Your task to perform on an android device: Open accessibility settings Image 0: 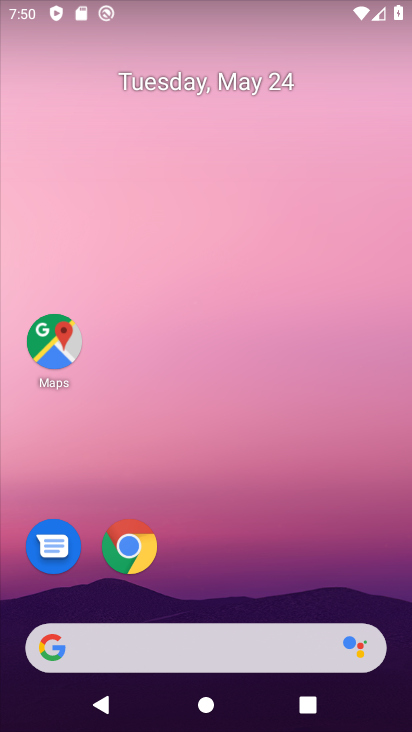
Step 0: drag from (288, 560) to (294, 81)
Your task to perform on an android device: Open accessibility settings Image 1: 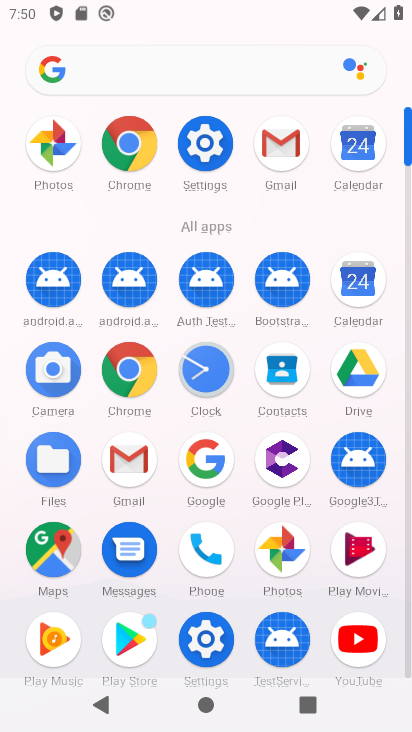
Step 1: click (199, 146)
Your task to perform on an android device: Open accessibility settings Image 2: 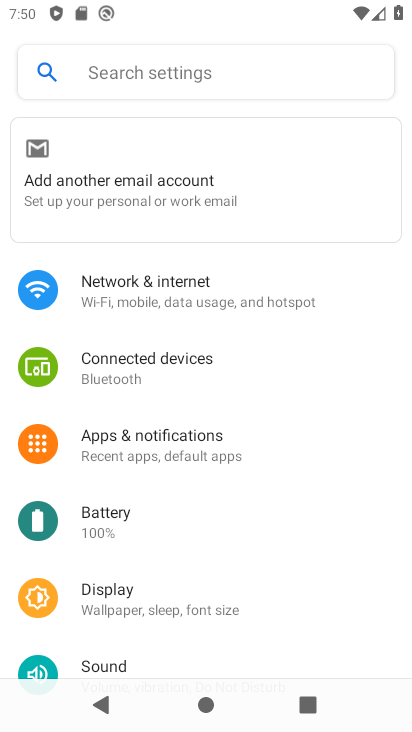
Step 2: drag from (260, 371) to (285, 87)
Your task to perform on an android device: Open accessibility settings Image 3: 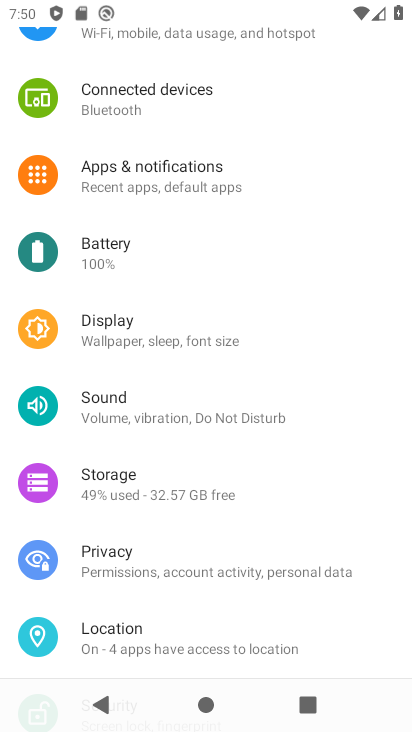
Step 3: drag from (215, 497) to (229, 73)
Your task to perform on an android device: Open accessibility settings Image 4: 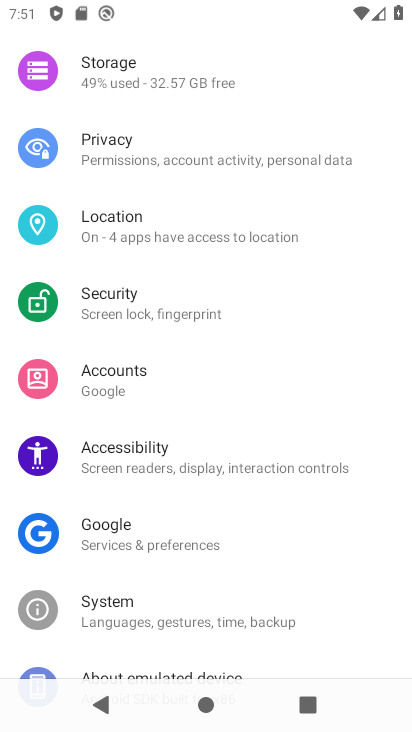
Step 4: click (202, 454)
Your task to perform on an android device: Open accessibility settings Image 5: 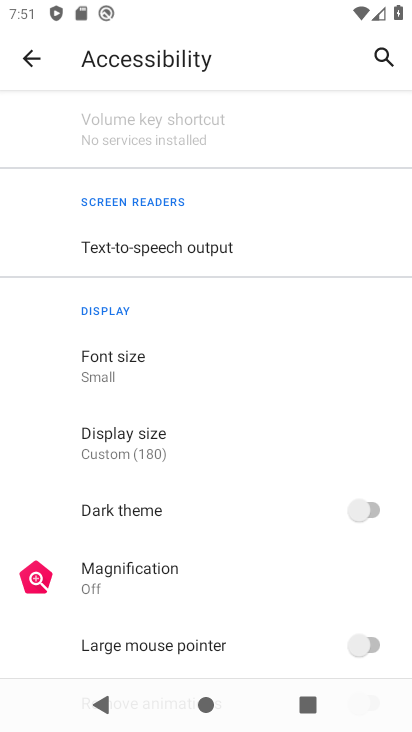
Step 5: task complete